Your task to perform on an android device: Search for Mexican restaurants on Maps Image 0: 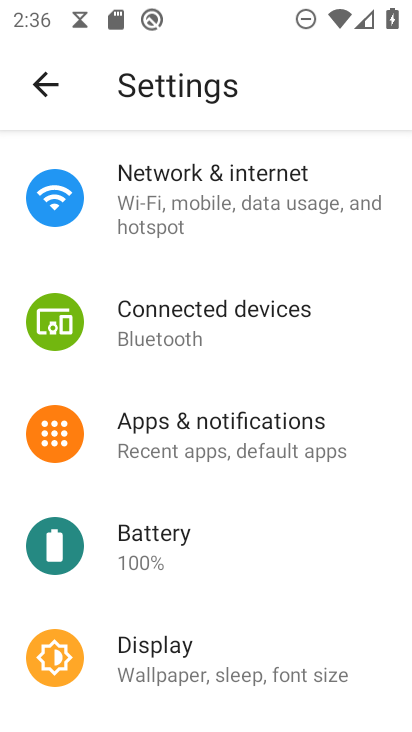
Step 0: press home button
Your task to perform on an android device: Search for Mexican restaurants on Maps Image 1: 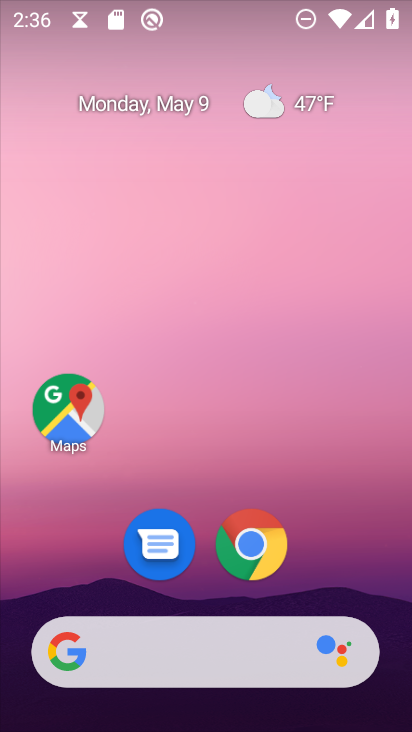
Step 1: click (57, 401)
Your task to perform on an android device: Search for Mexican restaurants on Maps Image 2: 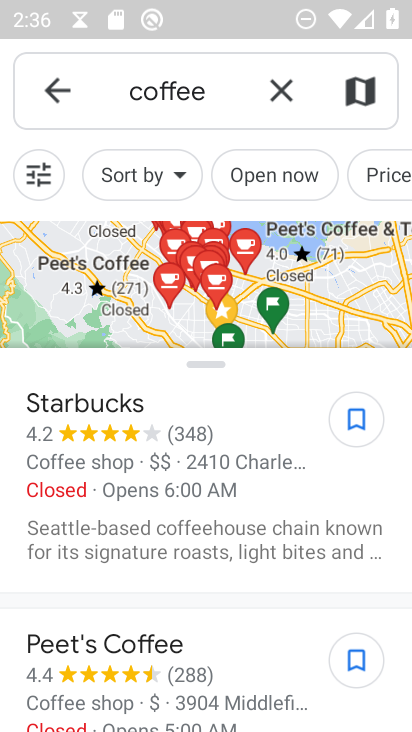
Step 2: click (278, 81)
Your task to perform on an android device: Search for Mexican restaurants on Maps Image 3: 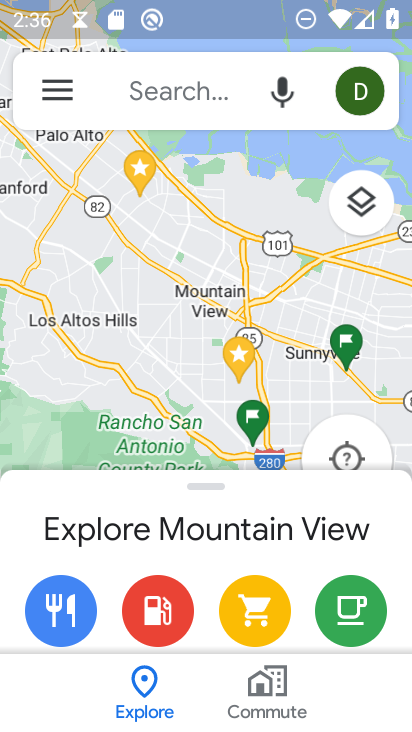
Step 3: click (206, 85)
Your task to perform on an android device: Search for Mexican restaurants on Maps Image 4: 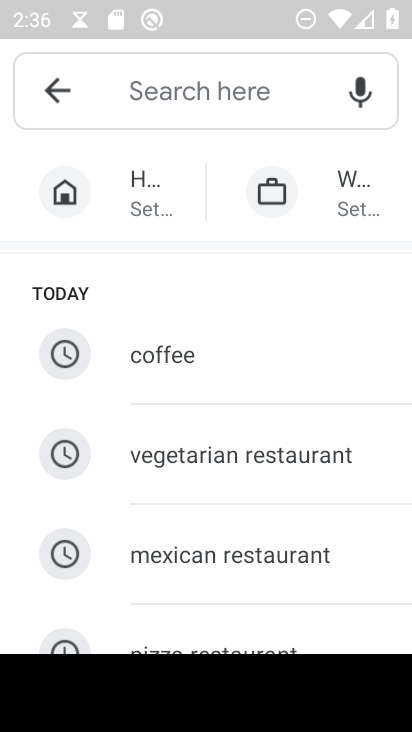
Step 4: click (288, 548)
Your task to perform on an android device: Search for Mexican restaurants on Maps Image 5: 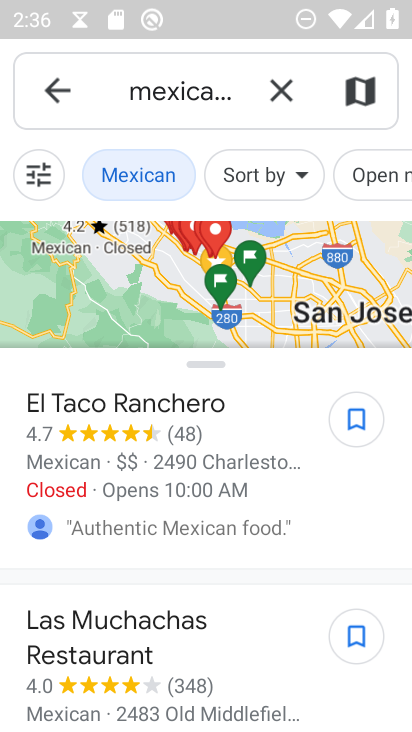
Step 5: task complete